Your task to perform on an android device: turn off improve location accuracy Image 0: 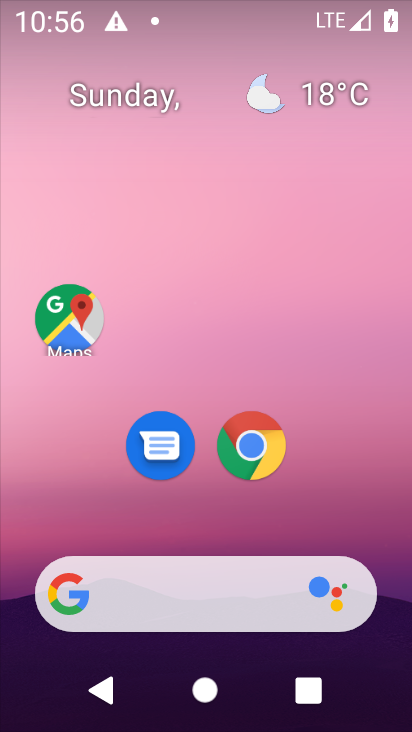
Step 0: drag from (166, 575) to (39, 60)
Your task to perform on an android device: turn off improve location accuracy Image 1: 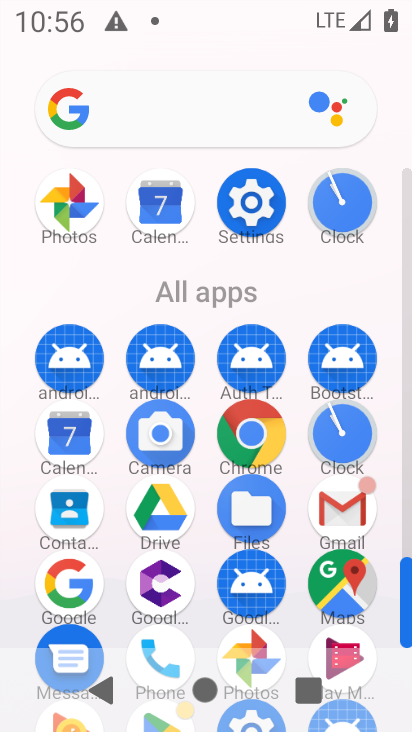
Step 1: click (241, 207)
Your task to perform on an android device: turn off improve location accuracy Image 2: 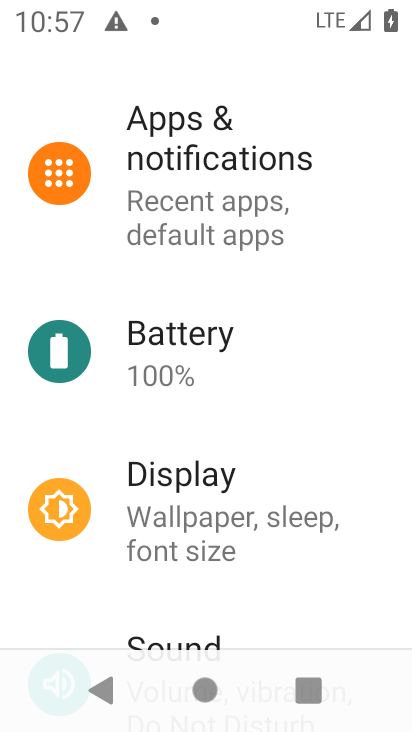
Step 2: drag from (236, 579) to (212, 5)
Your task to perform on an android device: turn off improve location accuracy Image 3: 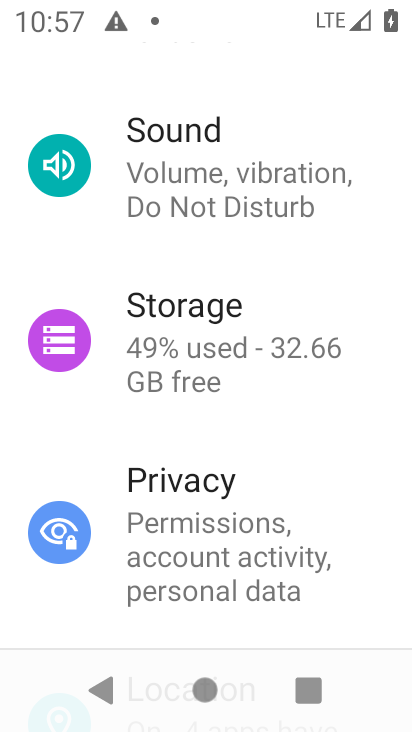
Step 3: drag from (162, 610) to (159, 119)
Your task to perform on an android device: turn off improve location accuracy Image 4: 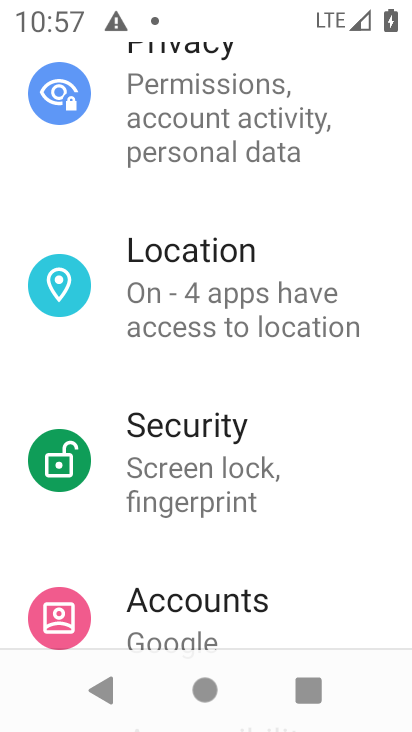
Step 4: click (190, 320)
Your task to perform on an android device: turn off improve location accuracy Image 5: 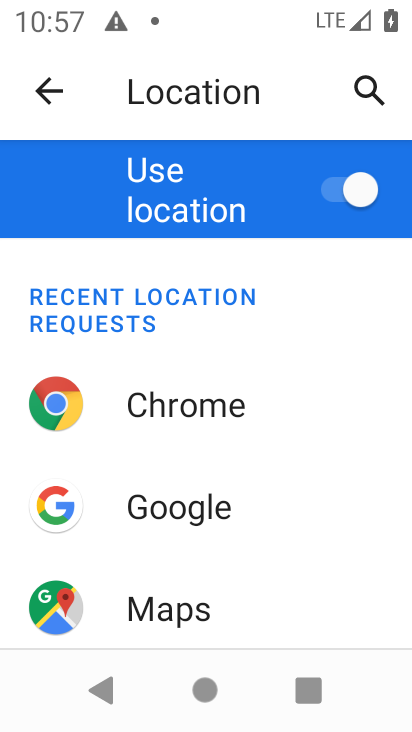
Step 5: drag from (163, 565) to (93, 0)
Your task to perform on an android device: turn off improve location accuracy Image 6: 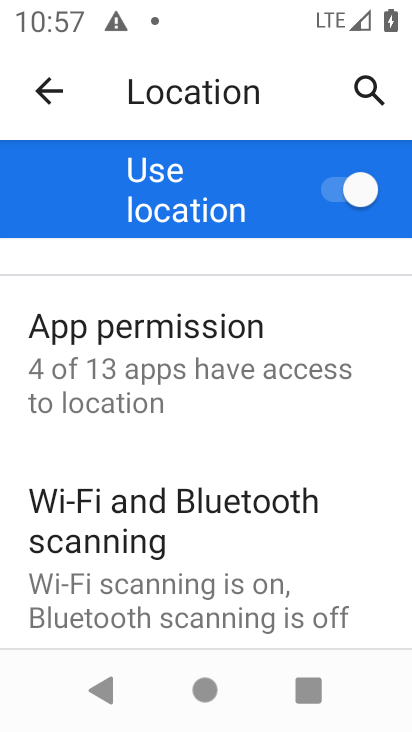
Step 6: drag from (210, 589) to (236, 2)
Your task to perform on an android device: turn off improve location accuracy Image 7: 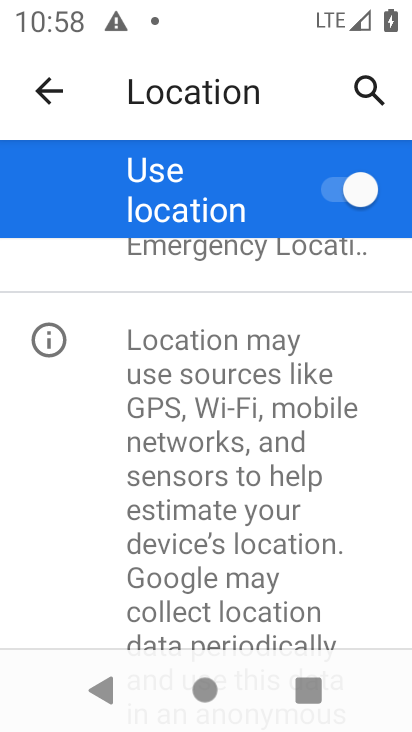
Step 7: drag from (179, 277) to (163, 477)
Your task to perform on an android device: turn off improve location accuracy Image 8: 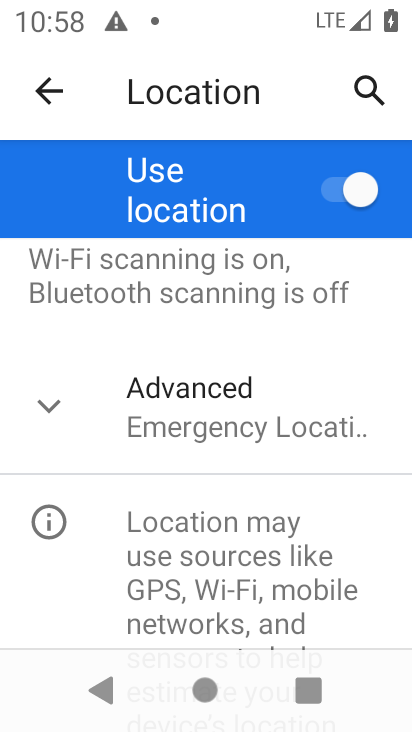
Step 8: click (137, 422)
Your task to perform on an android device: turn off improve location accuracy Image 9: 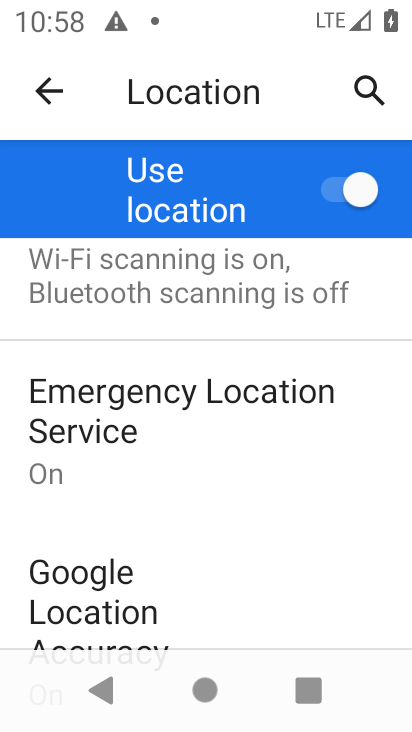
Step 9: click (161, 537)
Your task to perform on an android device: turn off improve location accuracy Image 10: 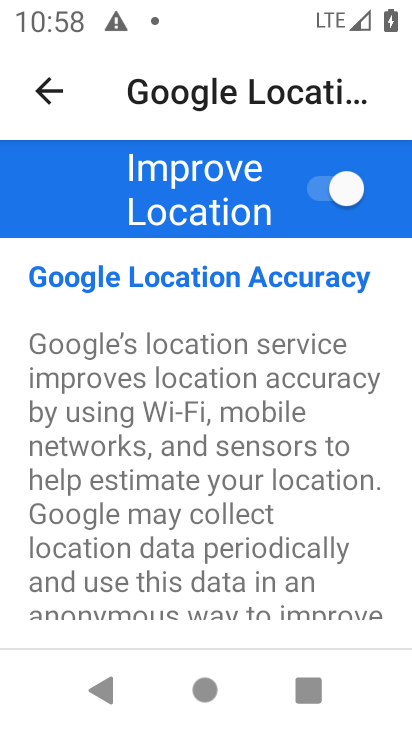
Step 10: click (349, 211)
Your task to perform on an android device: turn off improve location accuracy Image 11: 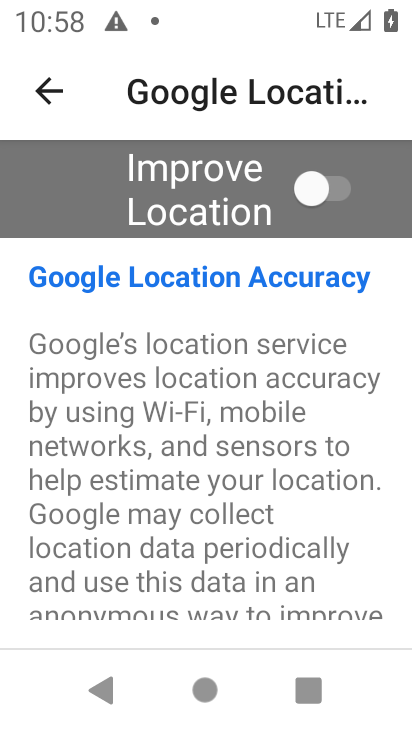
Step 11: task complete